Your task to perform on an android device: Search for pizza restaurants on Maps Image 0: 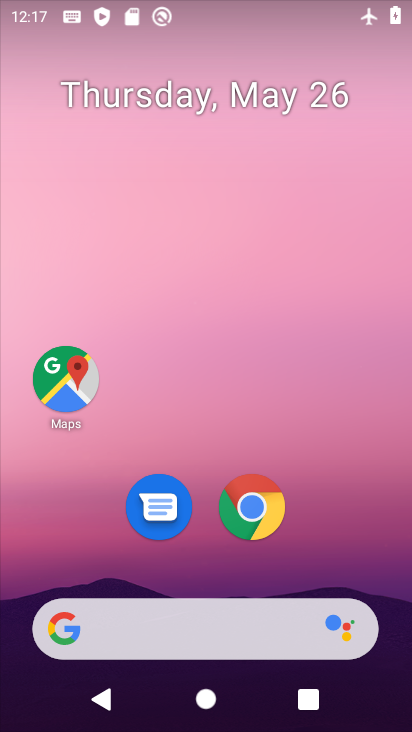
Step 0: click (71, 379)
Your task to perform on an android device: Search for pizza restaurants on Maps Image 1: 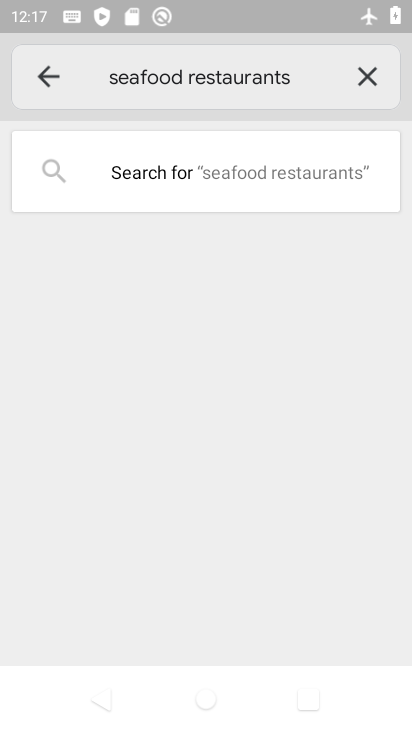
Step 1: click (351, 80)
Your task to perform on an android device: Search for pizza restaurants on Maps Image 2: 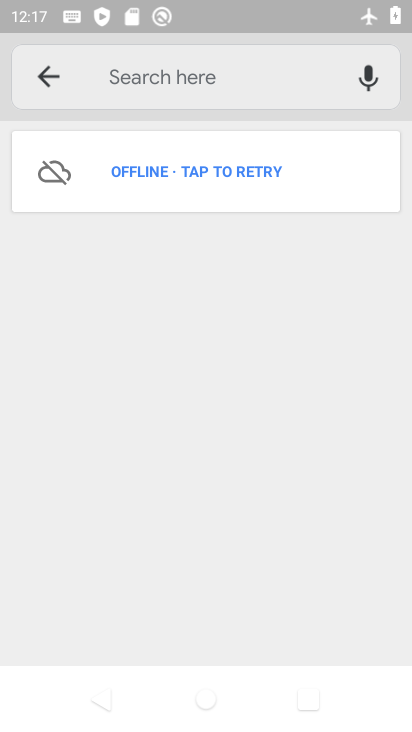
Step 2: click (315, 73)
Your task to perform on an android device: Search for pizza restaurants on Maps Image 3: 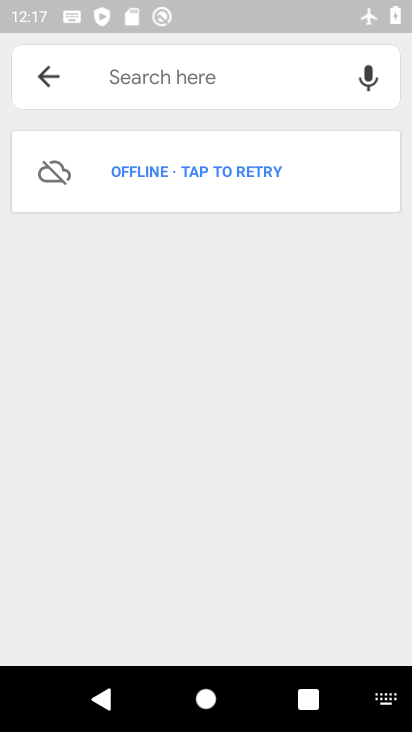
Step 3: type "pizza restaurants "
Your task to perform on an android device: Search for pizza restaurants on Maps Image 4: 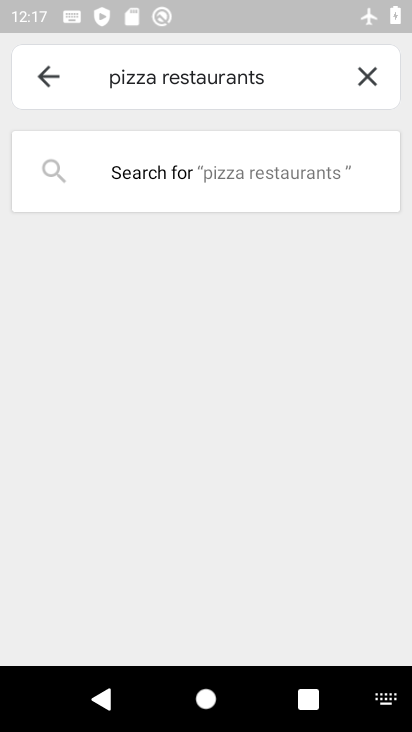
Step 4: task complete